Your task to perform on an android device: Open calendar and show me the third week of next month Image 0: 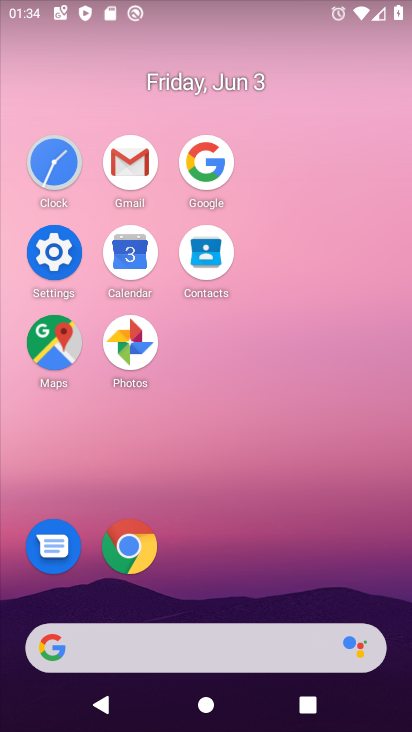
Step 0: click (134, 243)
Your task to perform on an android device: Open calendar and show me the third week of next month Image 1: 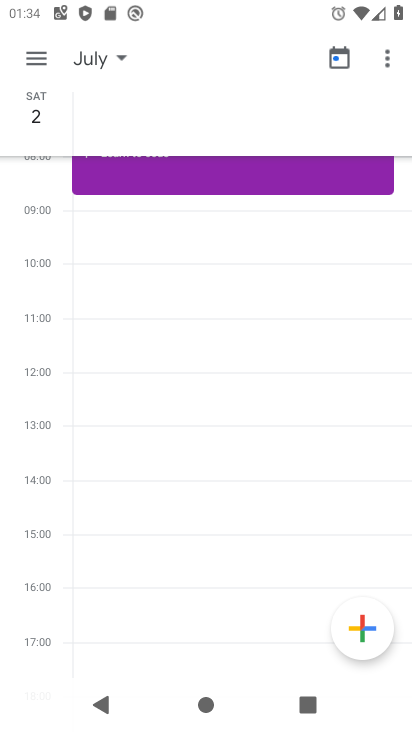
Step 1: click (97, 50)
Your task to perform on an android device: Open calendar and show me the third week of next month Image 2: 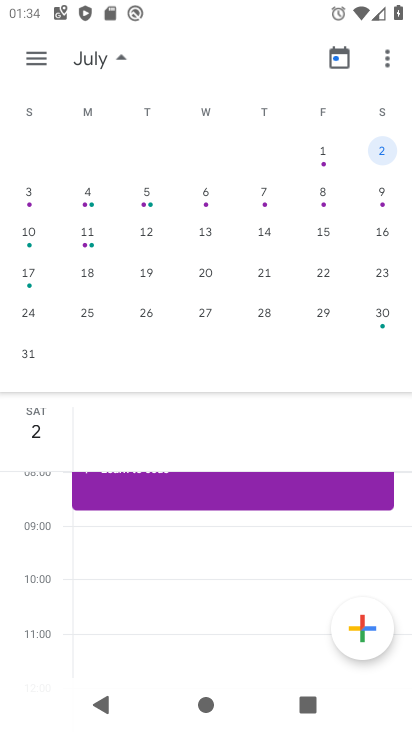
Step 2: click (45, 56)
Your task to perform on an android device: Open calendar and show me the third week of next month Image 3: 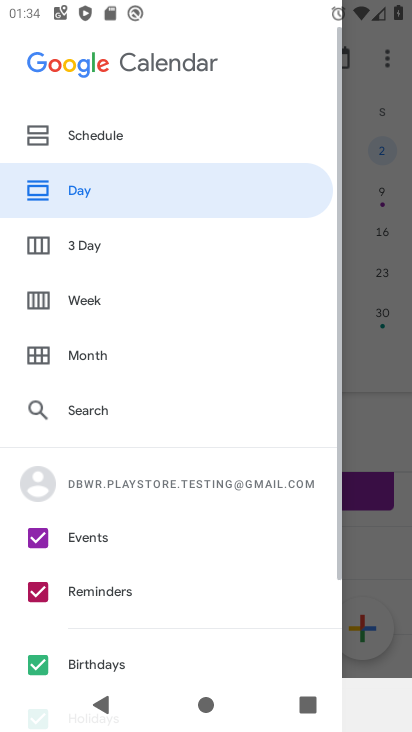
Step 3: click (92, 296)
Your task to perform on an android device: Open calendar and show me the third week of next month Image 4: 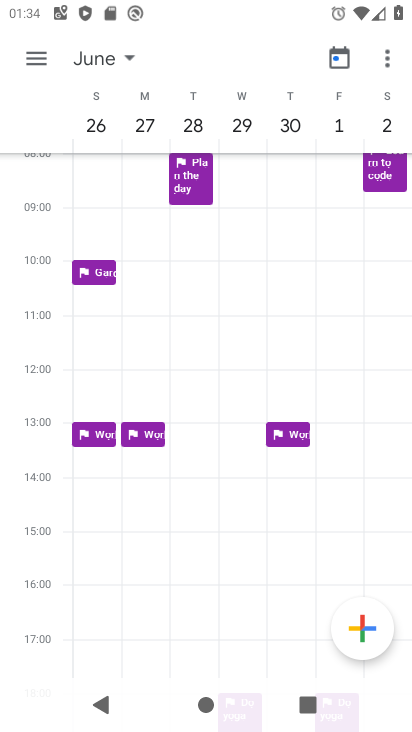
Step 4: click (24, 60)
Your task to perform on an android device: Open calendar and show me the third week of next month Image 5: 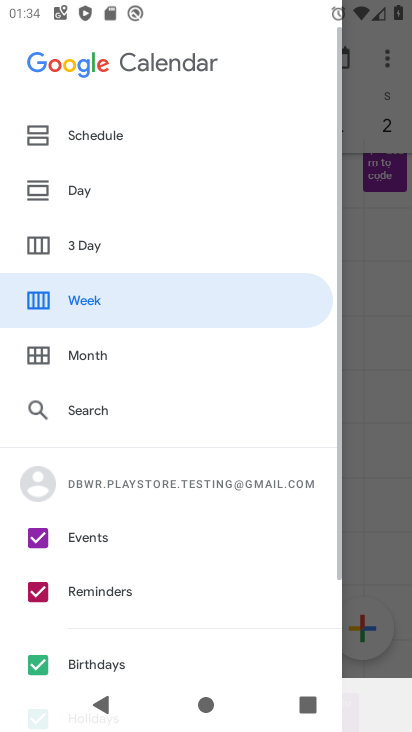
Step 5: click (115, 301)
Your task to perform on an android device: Open calendar and show me the third week of next month Image 6: 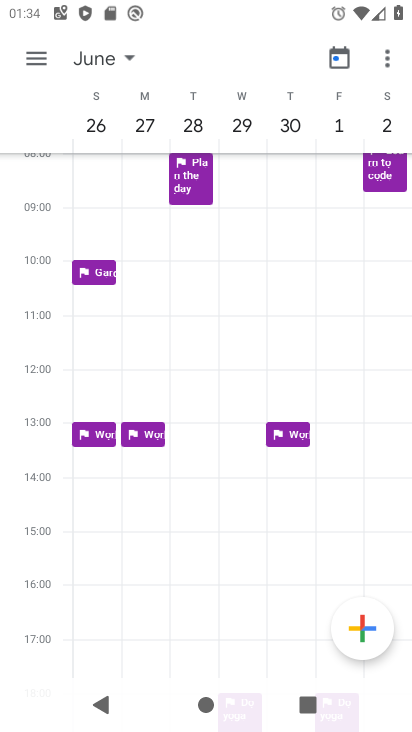
Step 6: click (27, 57)
Your task to perform on an android device: Open calendar and show me the third week of next month Image 7: 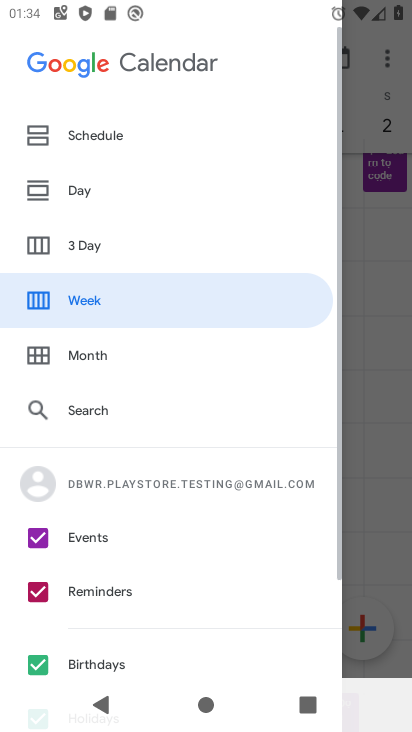
Step 7: click (90, 310)
Your task to perform on an android device: Open calendar and show me the third week of next month Image 8: 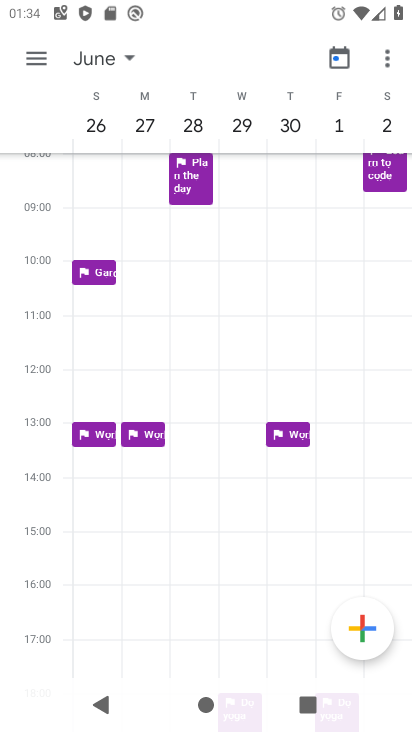
Step 8: task complete